Your task to perform on an android device: Do I have any events this weekend? Image 0: 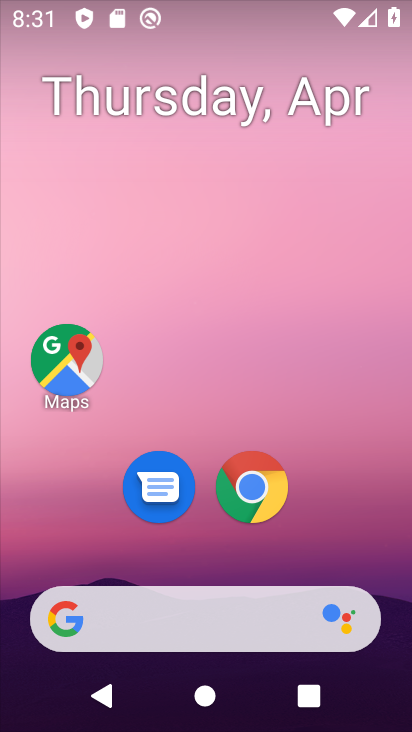
Step 0: drag from (212, 548) to (209, 78)
Your task to perform on an android device: Do I have any events this weekend? Image 1: 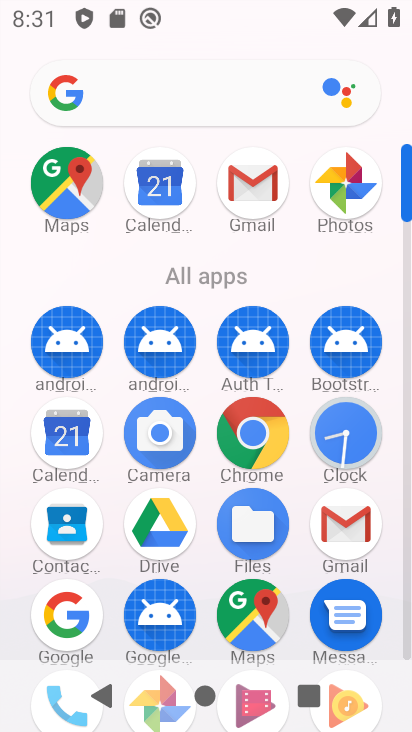
Step 1: click (165, 194)
Your task to perform on an android device: Do I have any events this weekend? Image 2: 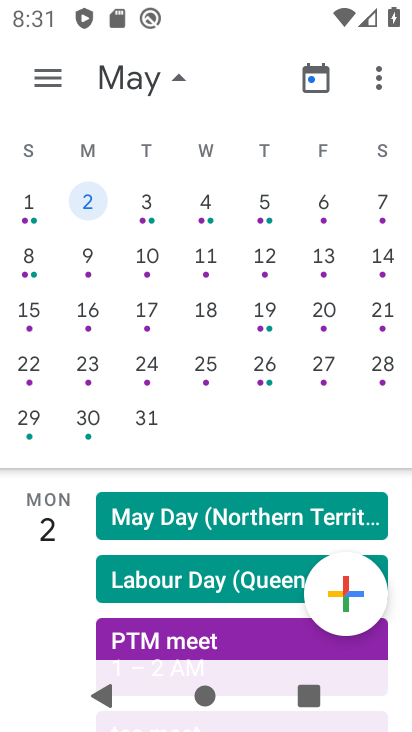
Step 2: drag from (170, 301) to (396, 300)
Your task to perform on an android device: Do I have any events this weekend? Image 3: 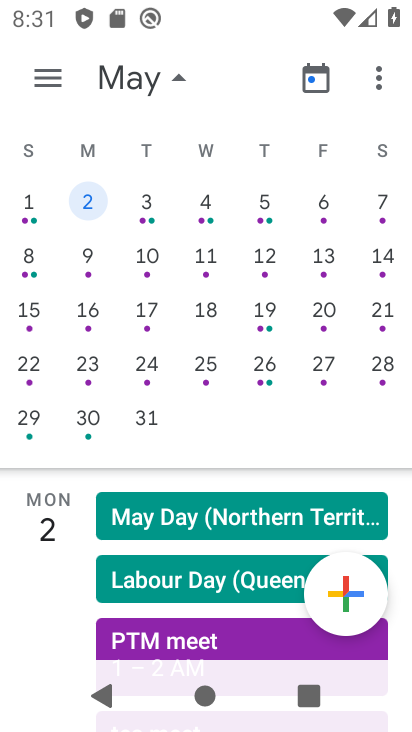
Step 3: drag from (77, 297) to (362, 289)
Your task to perform on an android device: Do I have any events this weekend? Image 4: 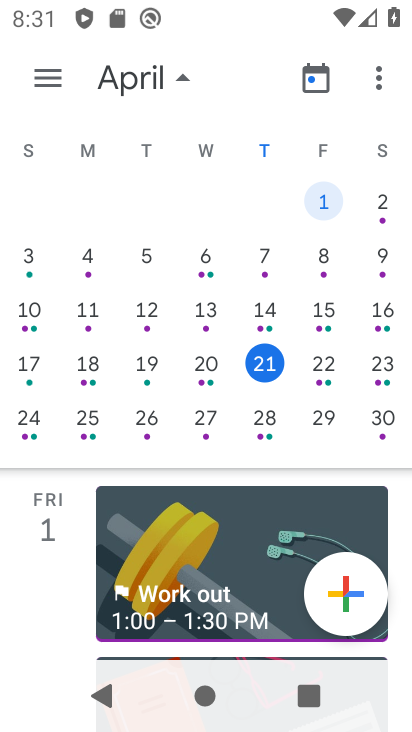
Step 4: click (371, 357)
Your task to perform on an android device: Do I have any events this weekend? Image 5: 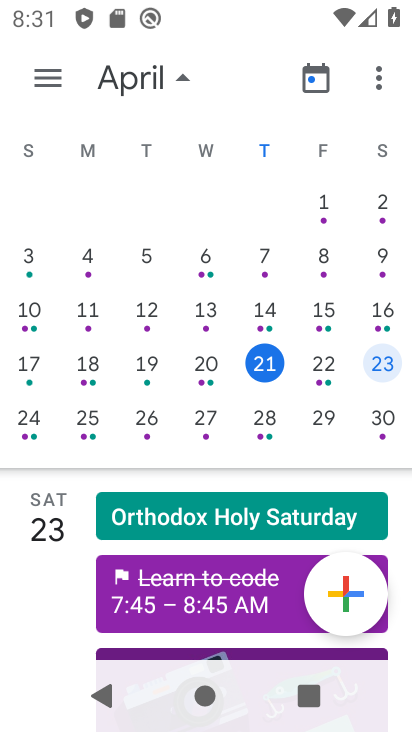
Step 5: click (220, 507)
Your task to perform on an android device: Do I have any events this weekend? Image 6: 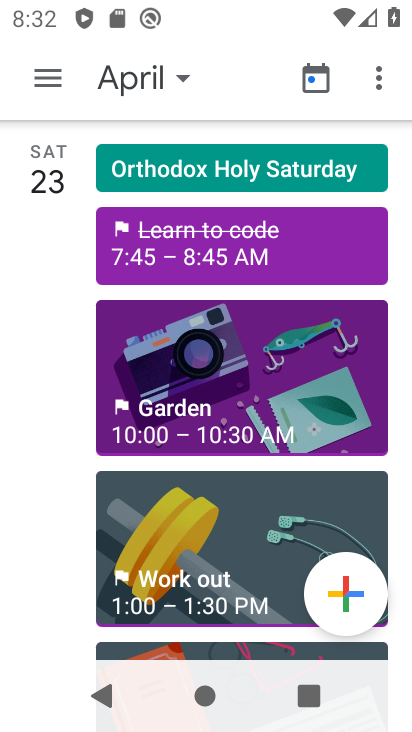
Step 6: task complete